Your task to perform on an android device: Open Yahoo.com Image 0: 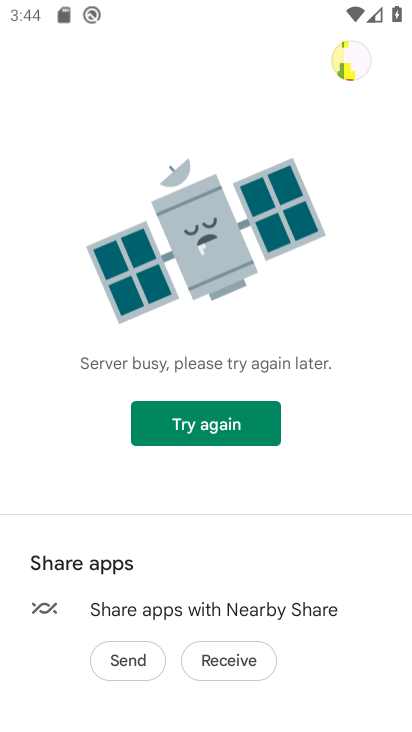
Step 0: press home button
Your task to perform on an android device: Open Yahoo.com Image 1: 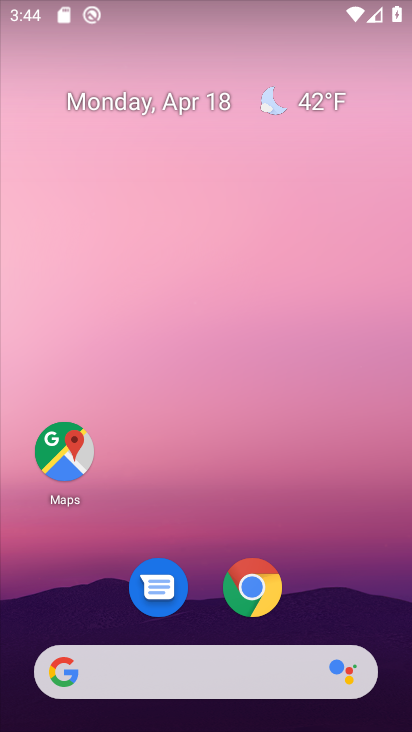
Step 1: click (263, 582)
Your task to perform on an android device: Open Yahoo.com Image 2: 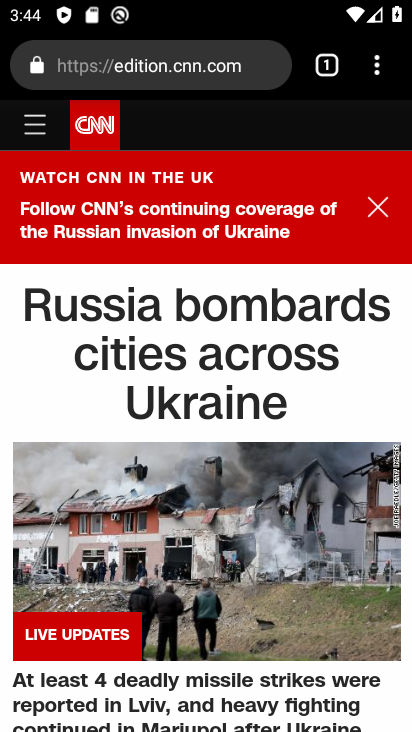
Step 2: click (330, 70)
Your task to perform on an android device: Open Yahoo.com Image 3: 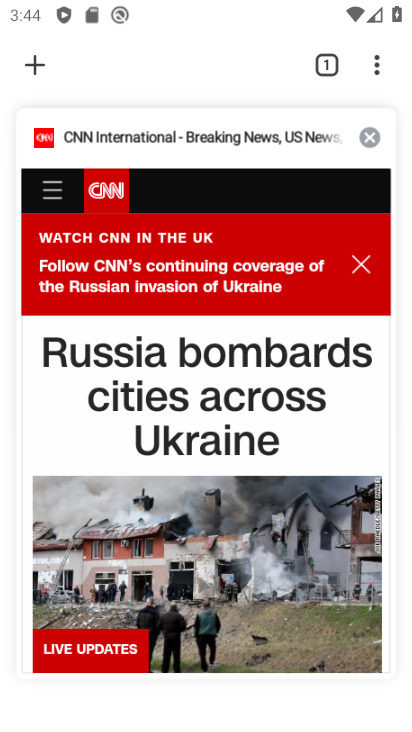
Step 3: click (39, 71)
Your task to perform on an android device: Open Yahoo.com Image 4: 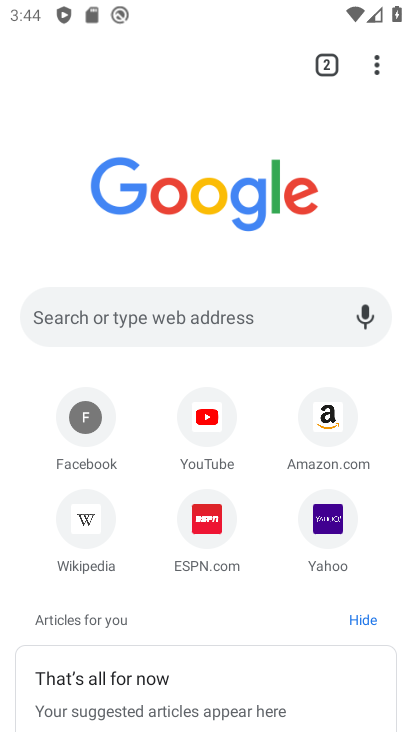
Step 4: click (329, 505)
Your task to perform on an android device: Open Yahoo.com Image 5: 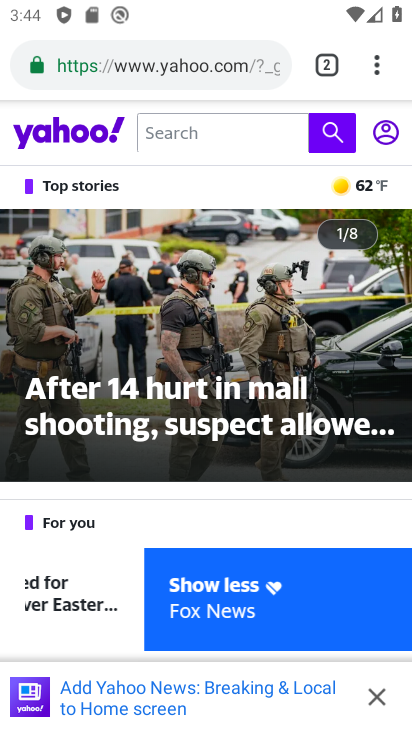
Step 5: task complete